Your task to perform on an android device: toggle notifications settings in the gmail app Image 0: 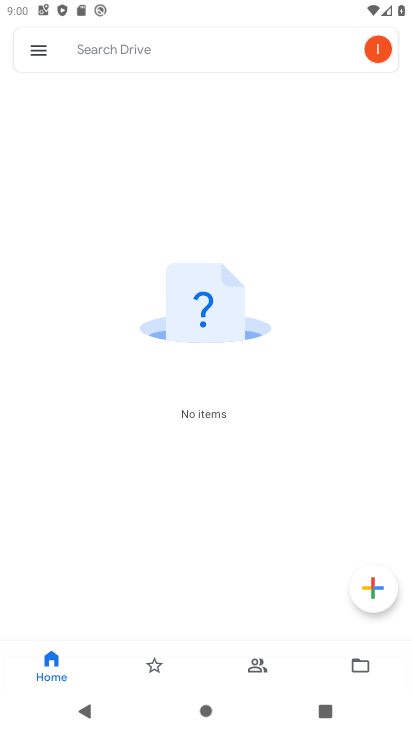
Step 0: press home button
Your task to perform on an android device: toggle notifications settings in the gmail app Image 1: 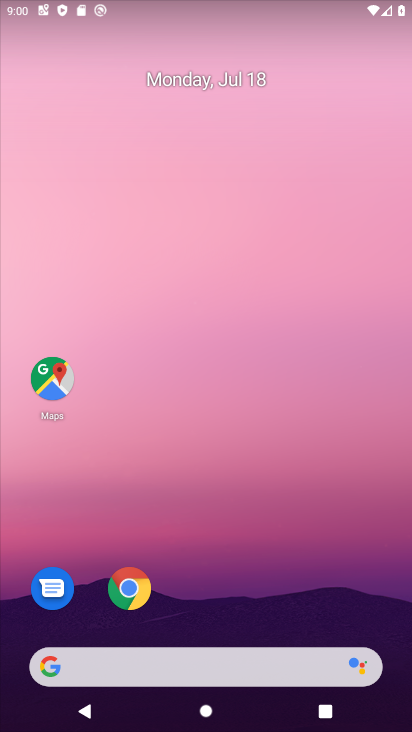
Step 1: drag from (253, 558) to (283, 26)
Your task to perform on an android device: toggle notifications settings in the gmail app Image 2: 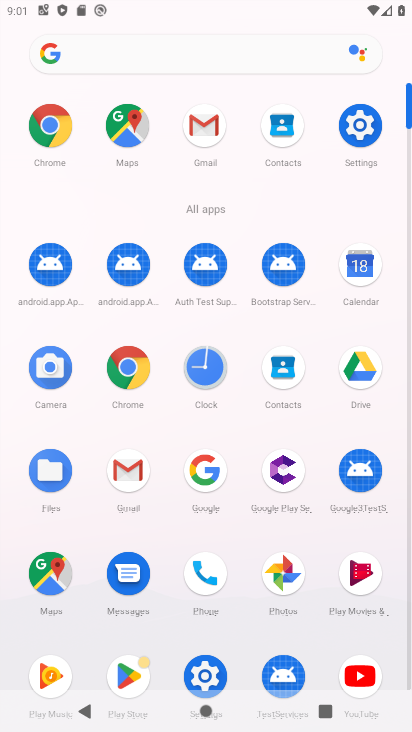
Step 2: click (200, 126)
Your task to perform on an android device: toggle notifications settings in the gmail app Image 3: 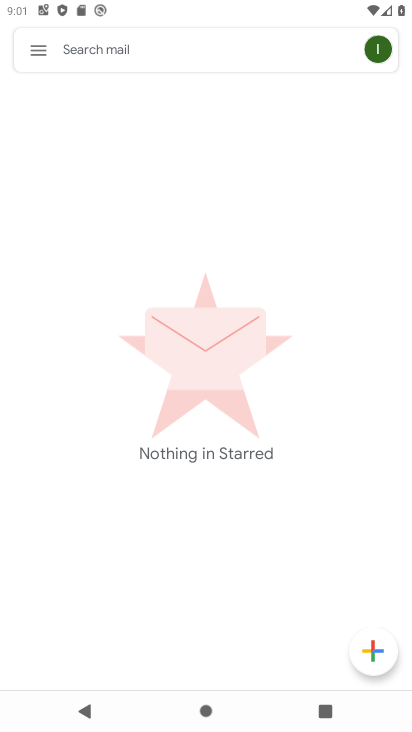
Step 3: click (35, 53)
Your task to perform on an android device: toggle notifications settings in the gmail app Image 4: 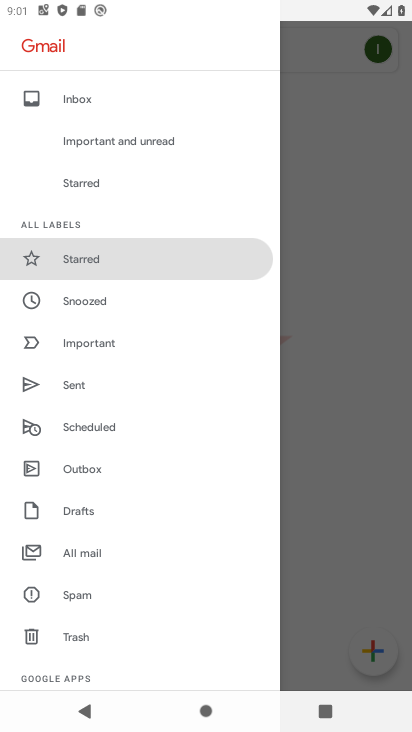
Step 4: drag from (66, 624) to (72, 219)
Your task to perform on an android device: toggle notifications settings in the gmail app Image 5: 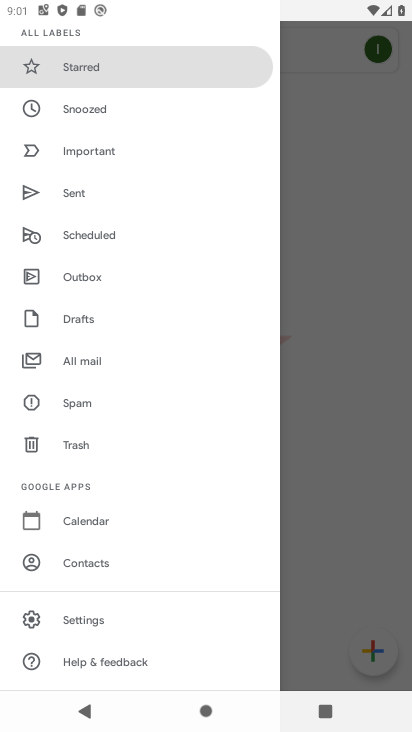
Step 5: click (72, 623)
Your task to perform on an android device: toggle notifications settings in the gmail app Image 6: 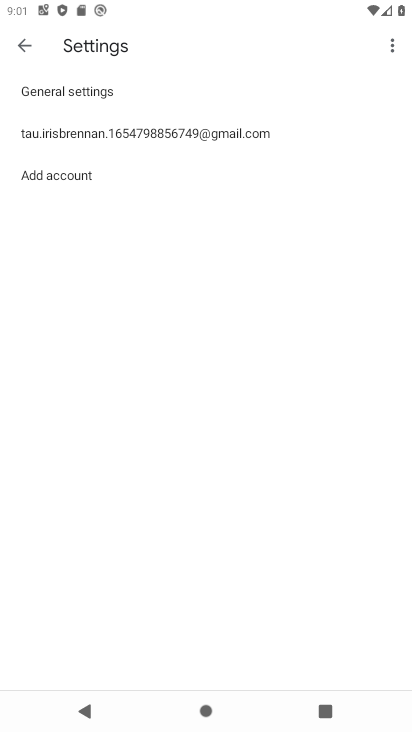
Step 6: click (153, 127)
Your task to perform on an android device: toggle notifications settings in the gmail app Image 7: 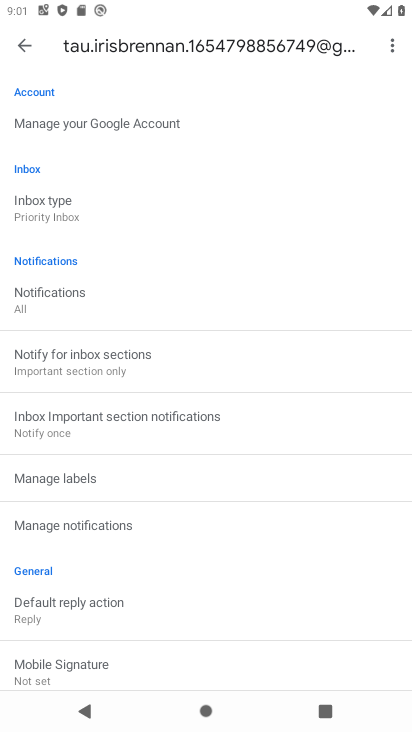
Step 7: click (112, 519)
Your task to perform on an android device: toggle notifications settings in the gmail app Image 8: 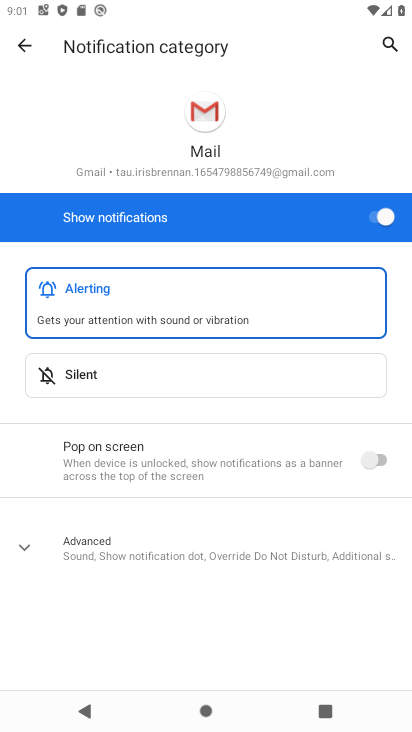
Step 8: click (374, 223)
Your task to perform on an android device: toggle notifications settings in the gmail app Image 9: 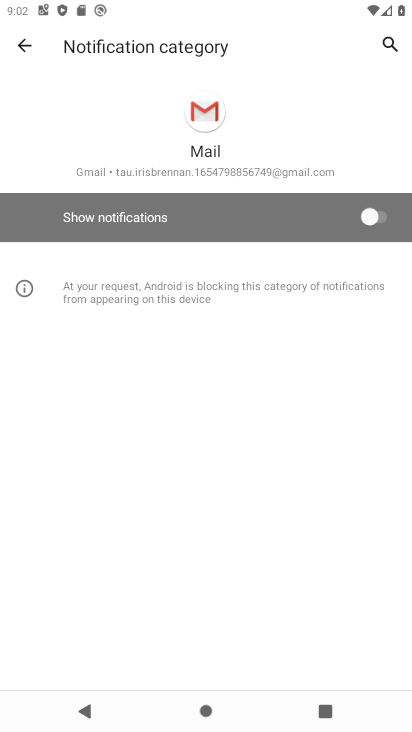
Step 9: task complete